Your task to perform on an android device: refresh tabs in the chrome app Image 0: 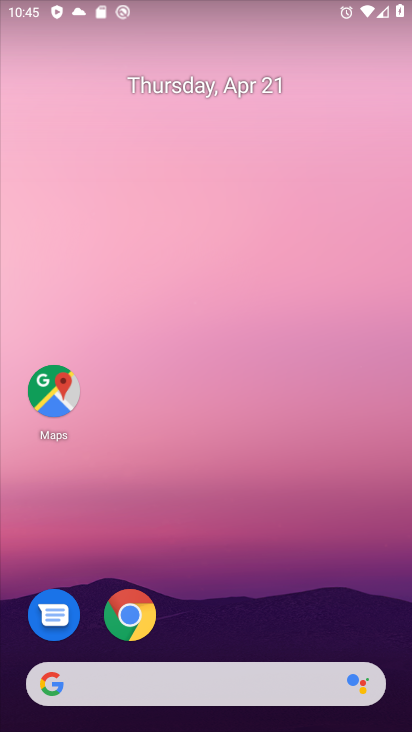
Step 0: drag from (222, 620) to (294, 97)
Your task to perform on an android device: refresh tabs in the chrome app Image 1: 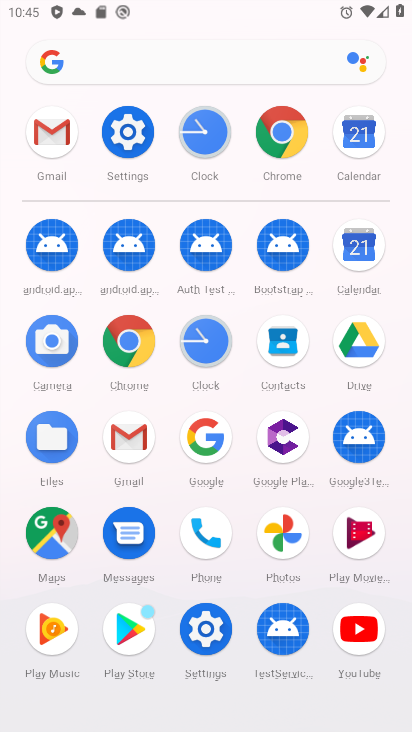
Step 1: press home button
Your task to perform on an android device: refresh tabs in the chrome app Image 2: 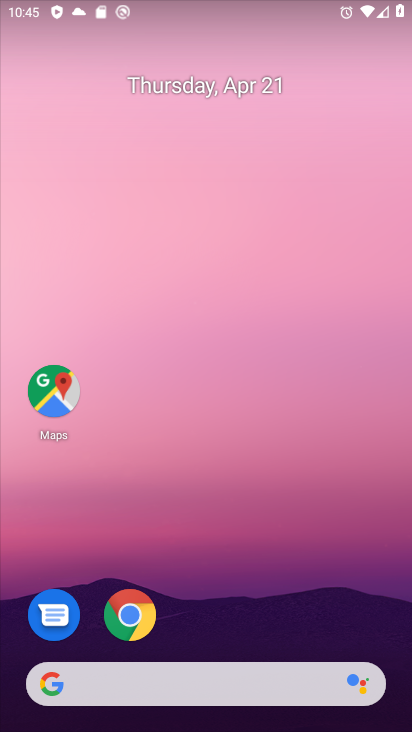
Step 2: click (129, 609)
Your task to perform on an android device: refresh tabs in the chrome app Image 3: 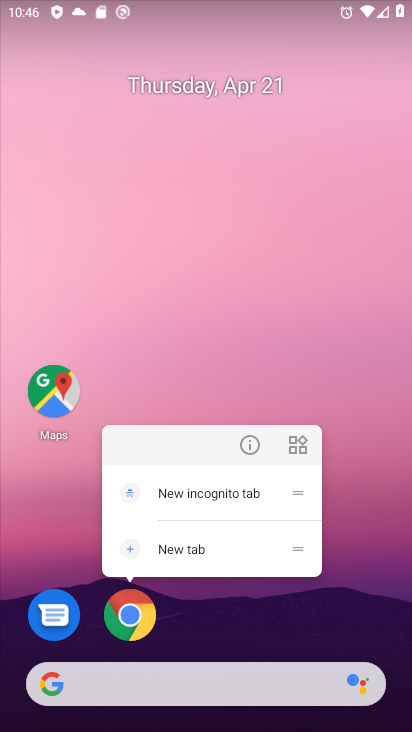
Step 3: click (281, 612)
Your task to perform on an android device: refresh tabs in the chrome app Image 4: 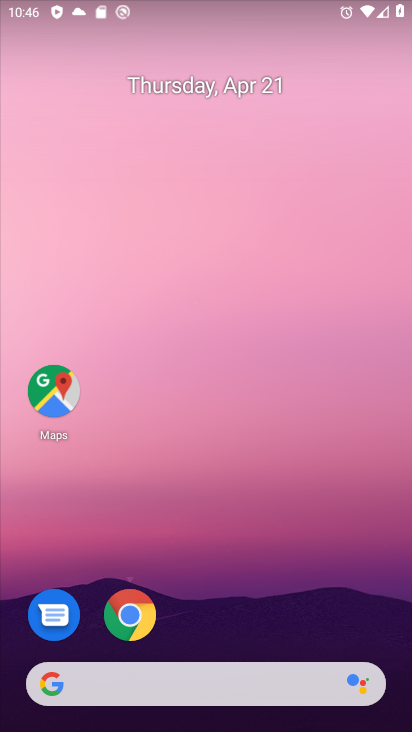
Step 4: drag from (335, 640) to (391, 30)
Your task to perform on an android device: refresh tabs in the chrome app Image 5: 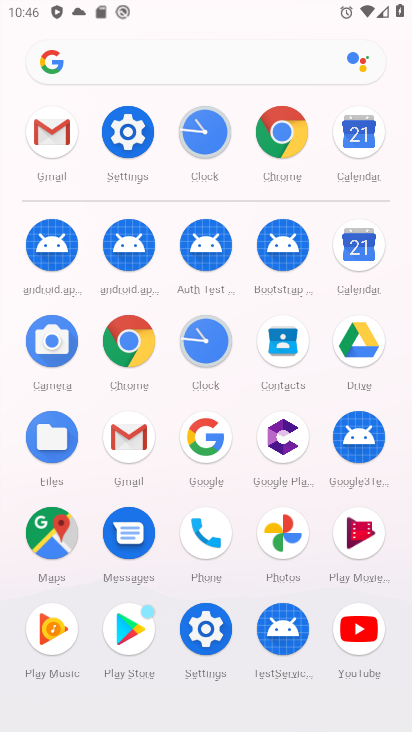
Step 5: click (279, 129)
Your task to perform on an android device: refresh tabs in the chrome app Image 6: 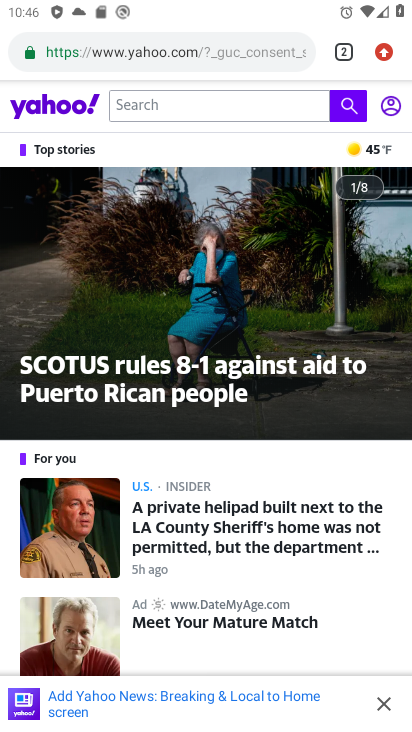
Step 6: click (383, 53)
Your task to perform on an android device: refresh tabs in the chrome app Image 7: 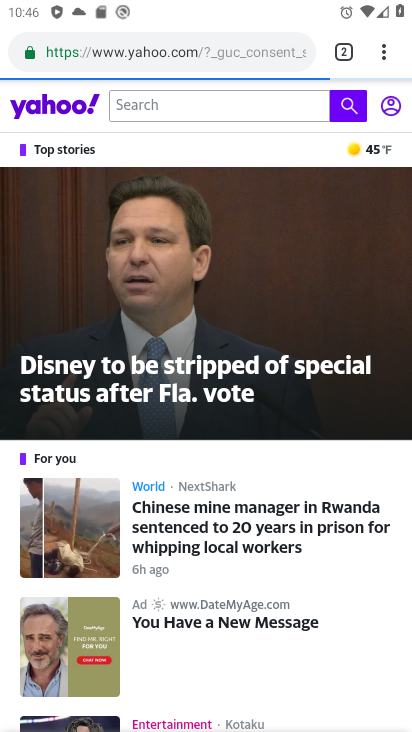
Step 7: task complete